Your task to perform on an android device: toggle wifi Image 0: 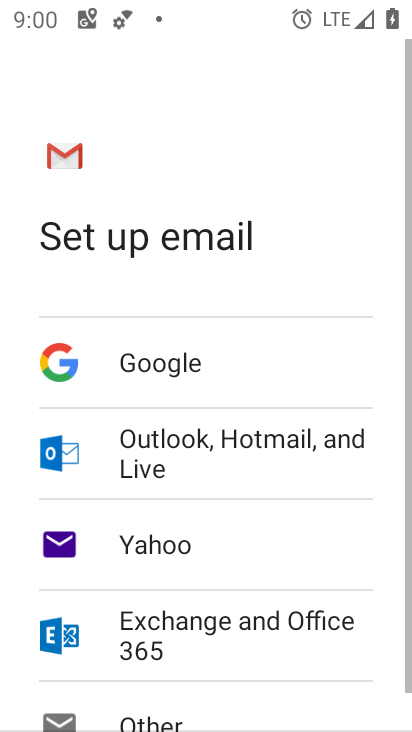
Step 0: press home button
Your task to perform on an android device: toggle wifi Image 1: 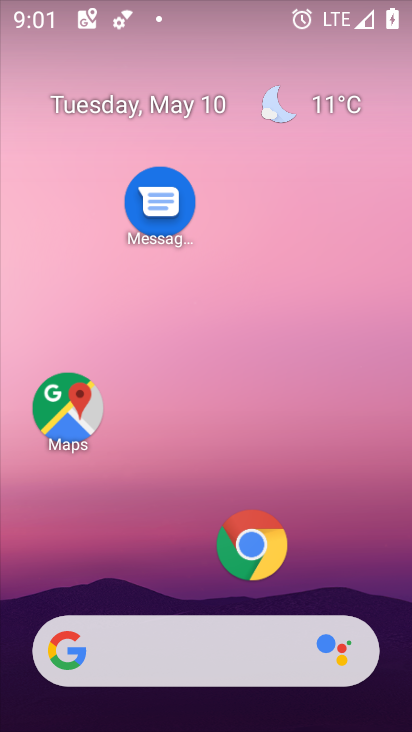
Step 1: drag from (200, 570) to (193, 13)
Your task to perform on an android device: toggle wifi Image 2: 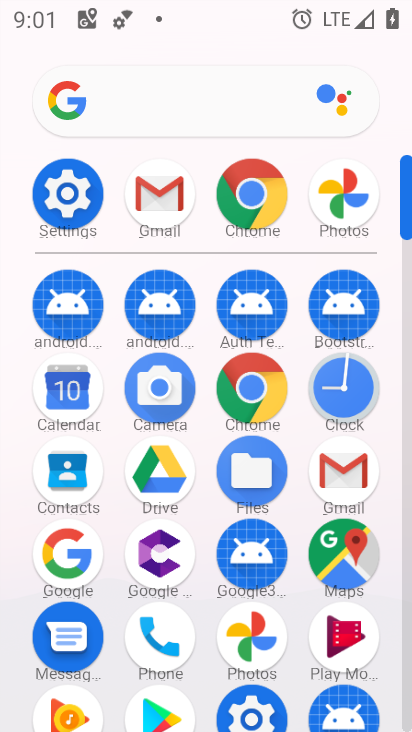
Step 2: drag from (180, 9) to (180, 558)
Your task to perform on an android device: toggle wifi Image 3: 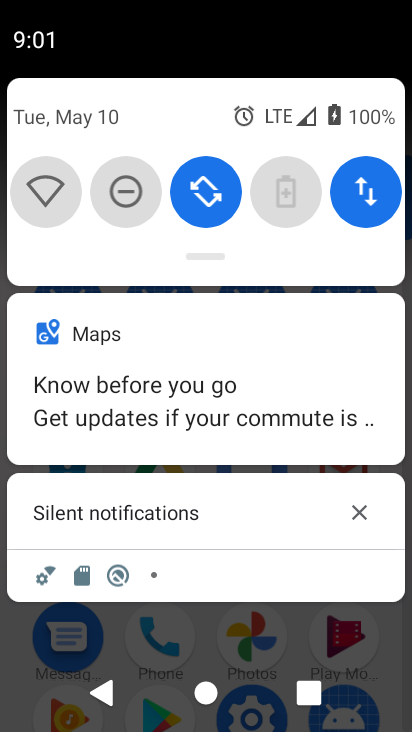
Step 3: click (49, 193)
Your task to perform on an android device: toggle wifi Image 4: 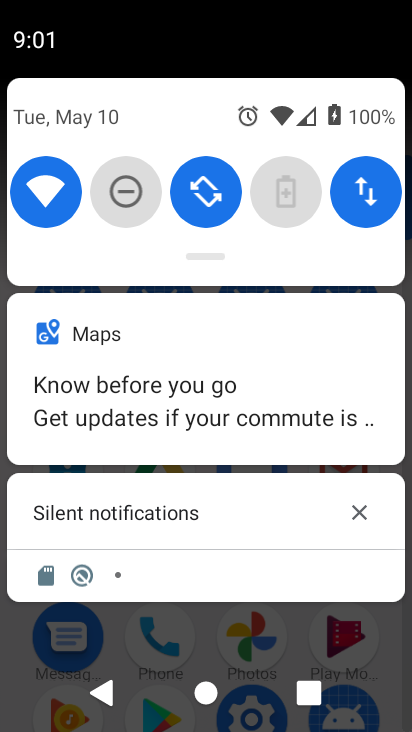
Step 4: task complete